Your task to perform on an android device: toggle notifications settings in the gmail app Image 0: 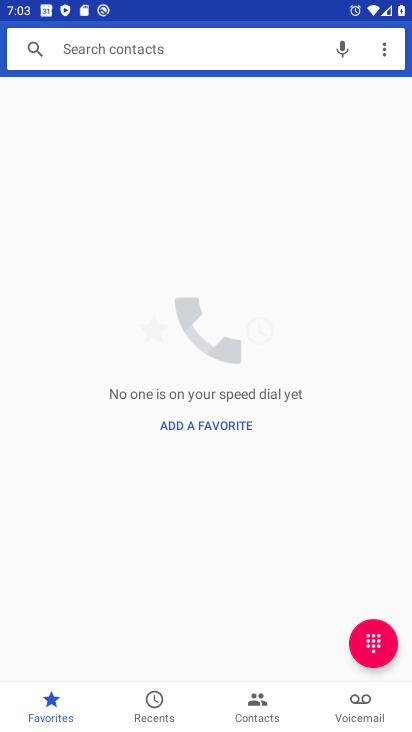
Step 0: press home button
Your task to perform on an android device: toggle notifications settings in the gmail app Image 1: 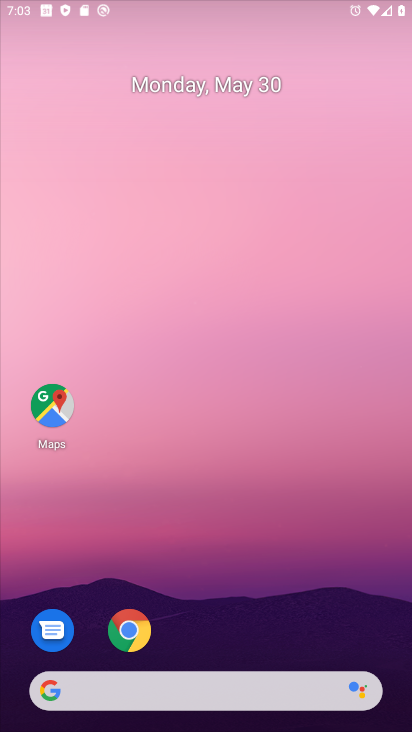
Step 1: drag from (361, 599) to (260, 5)
Your task to perform on an android device: toggle notifications settings in the gmail app Image 2: 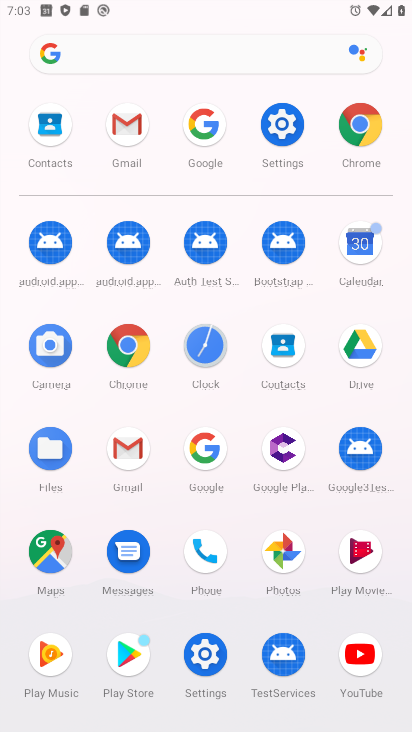
Step 2: click (111, 452)
Your task to perform on an android device: toggle notifications settings in the gmail app Image 3: 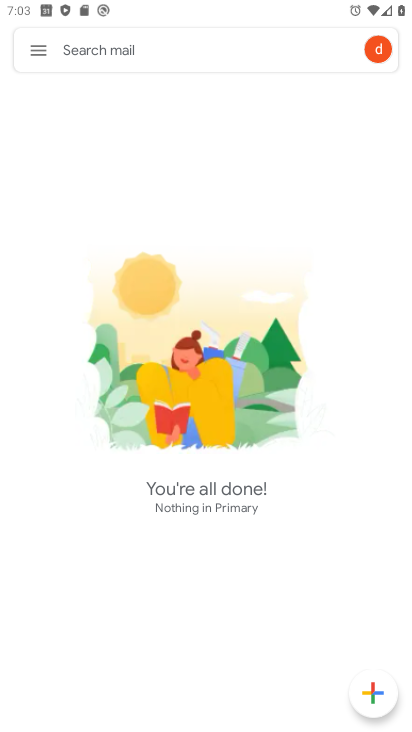
Step 3: click (35, 47)
Your task to perform on an android device: toggle notifications settings in the gmail app Image 4: 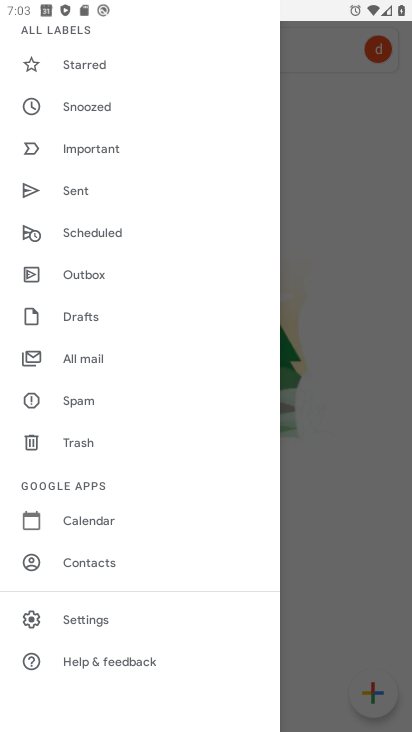
Step 4: click (65, 613)
Your task to perform on an android device: toggle notifications settings in the gmail app Image 5: 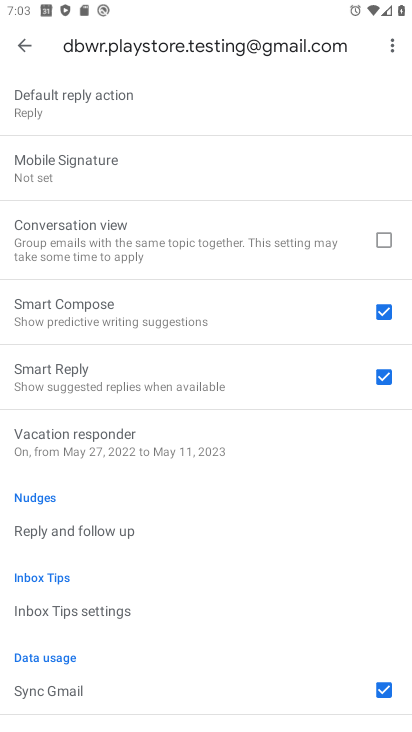
Step 5: drag from (191, 152) to (196, 723)
Your task to perform on an android device: toggle notifications settings in the gmail app Image 6: 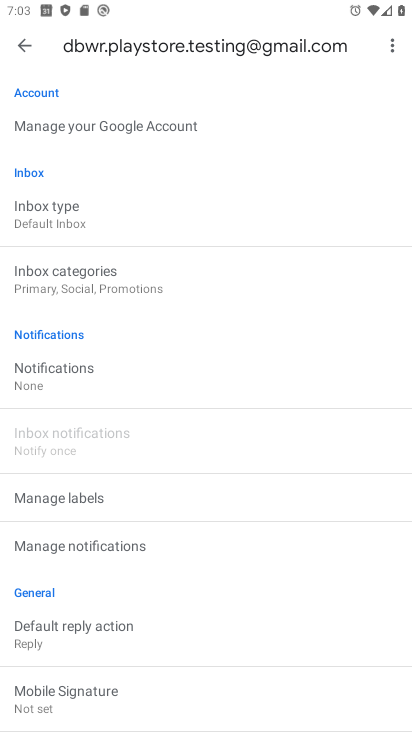
Step 6: click (88, 391)
Your task to perform on an android device: toggle notifications settings in the gmail app Image 7: 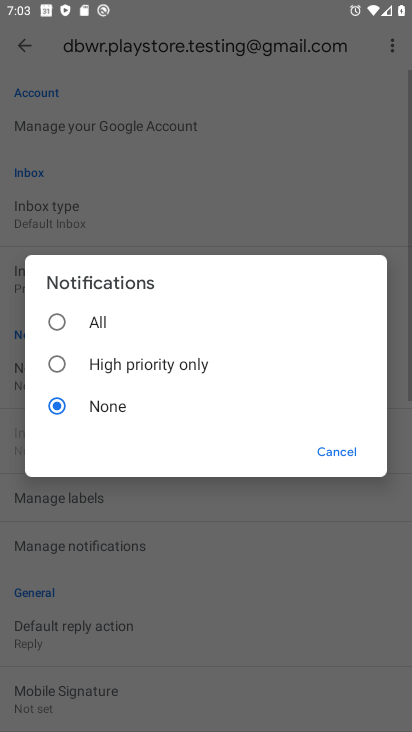
Step 7: click (55, 331)
Your task to perform on an android device: toggle notifications settings in the gmail app Image 8: 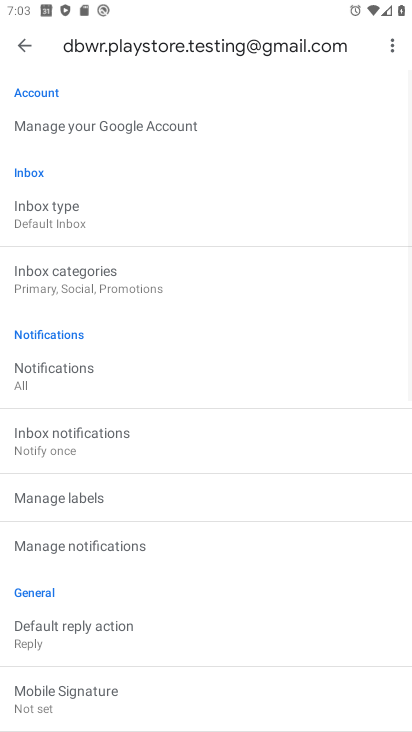
Step 8: task complete